Your task to perform on an android device: Go to Reddit.com Image 0: 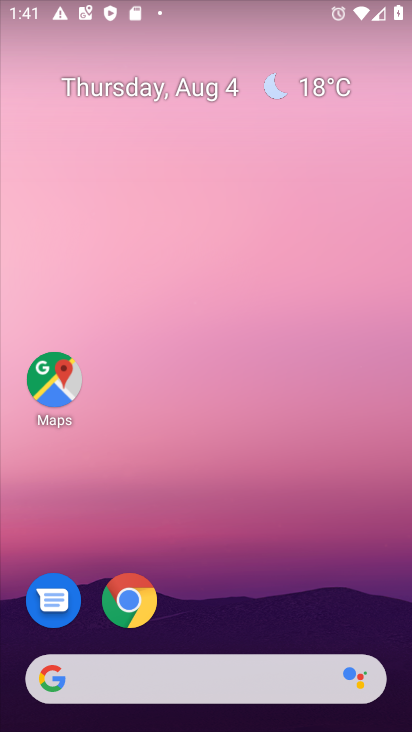
Step 0: click (131, 606)
Your task to perform on an android device: Go to Reddit.com Image 1: 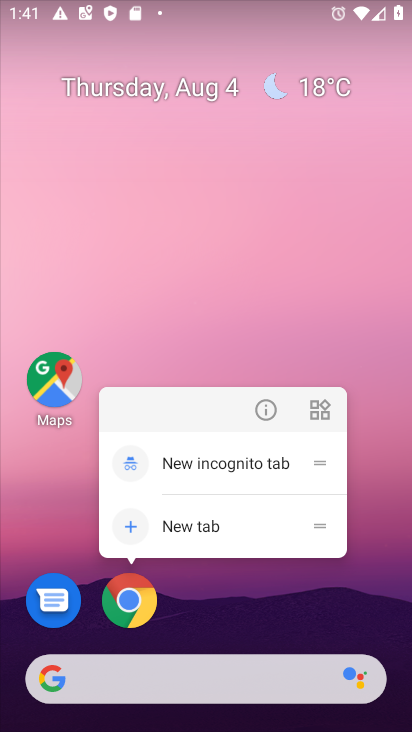
Step 1: click (128, 603)
Your task to perform on an android device: Go to Reddit.com Image 2: 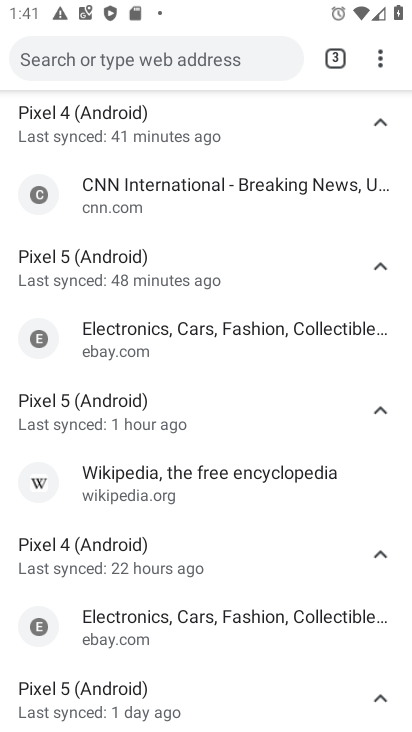
Step 2: drag from (382, 56) to (210, 182)
Your task to perform on an android device: Go to Reddit.com Image 3: 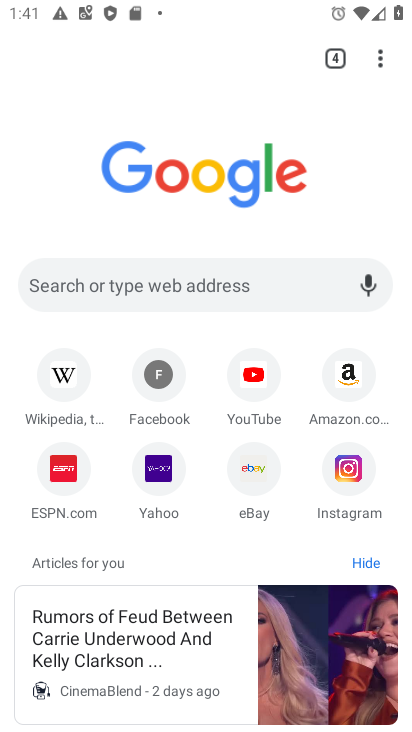
Step 3: click (113, 285)
Your task to perform on an android device: Go to Reddit.com Image 4: 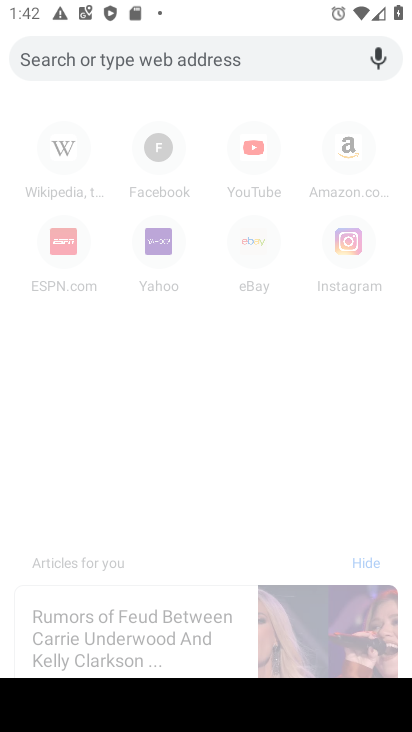
Step 4: type "reddit.com"
Your task to perform on an android device: Go to Reddit.com Image 5: 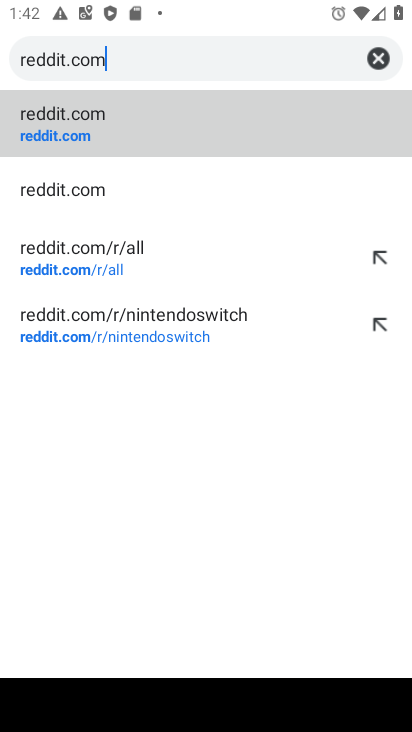
Step 5: click (151, 126)
Your task to perform on an android device: Go to Reddit.com Image 6: 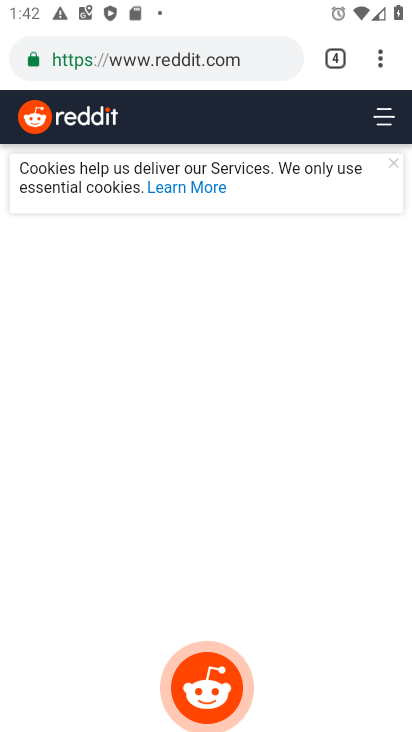
Step 6: task complete